Your task to perform on an android device: Open Amazon Image 0: 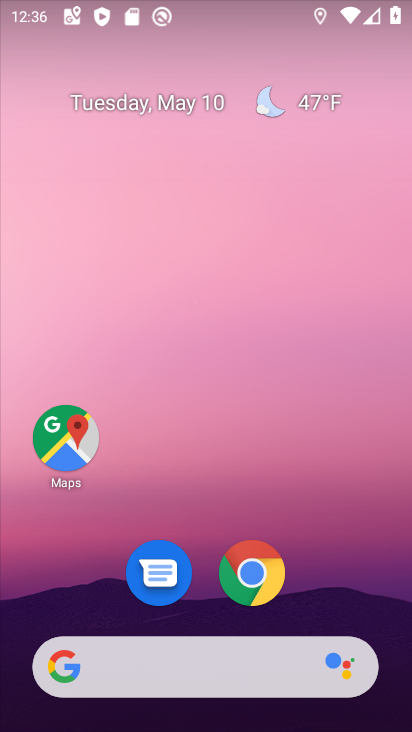
Step 0: click (219, 223)
Your task to perform on an android device: Open Amazon Image 1: 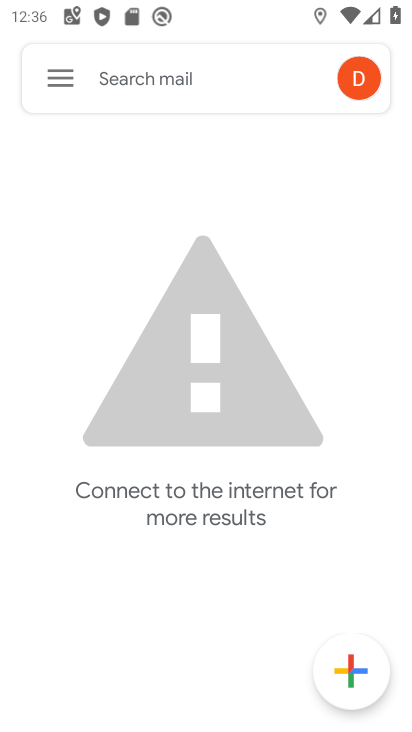
Step 1: drag from (214, 637) to (246, 340)
Your task to perform on an android device: Open Amazon Image 2: 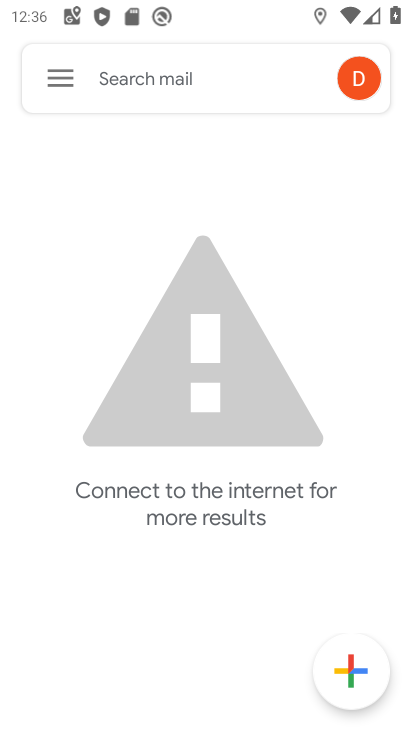
Step 2: press home button
Your task to perform on an android device: Open Amazon Image 3: 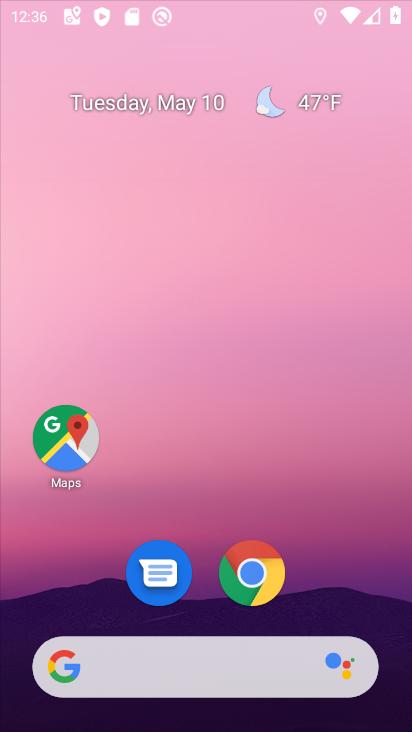
Step 3: drag from (172, 685) to (208, 279)
Your task to perform on an android device: Open Amazon Image 4: 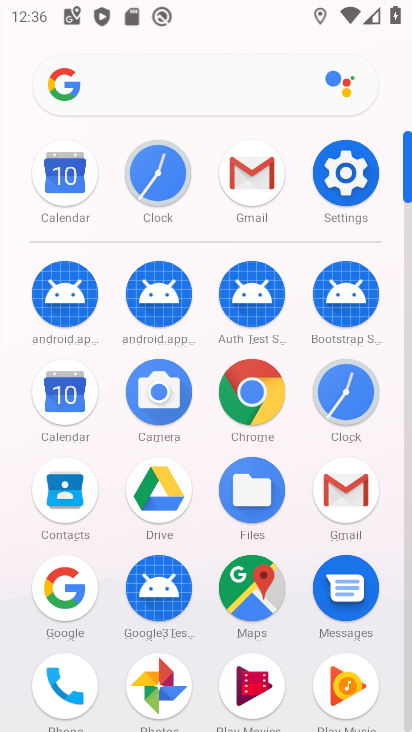
Step 4: click (264, 397)
Your task to perform on an android device: Open Amazon Image 5: 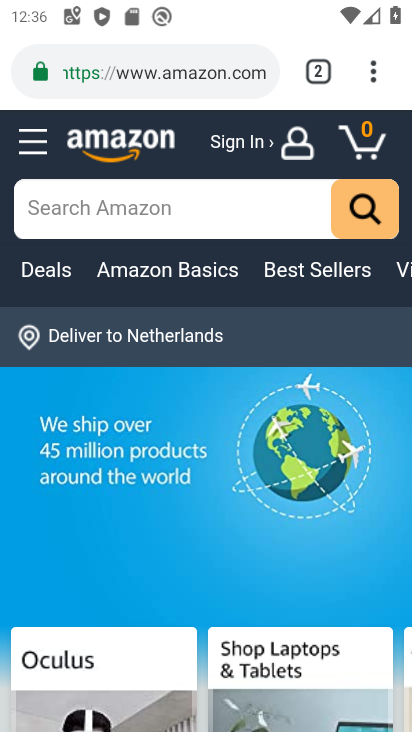
Step 5: task complete